Your task to perform on an android device: Open sound settings Image 0: 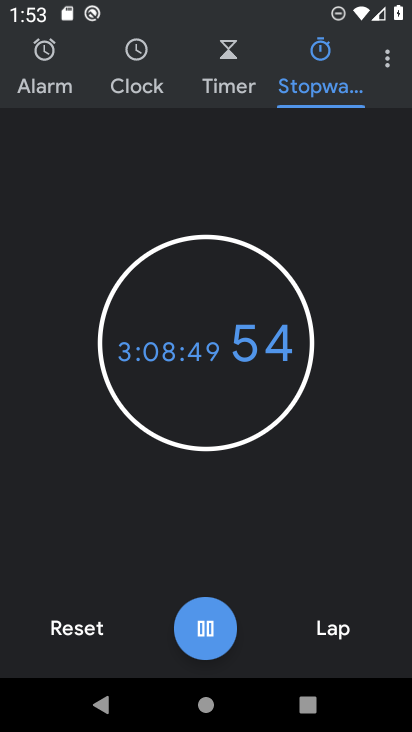
Step 0: press home button
Your task to perform on an android device: Open sound settings Image 1: 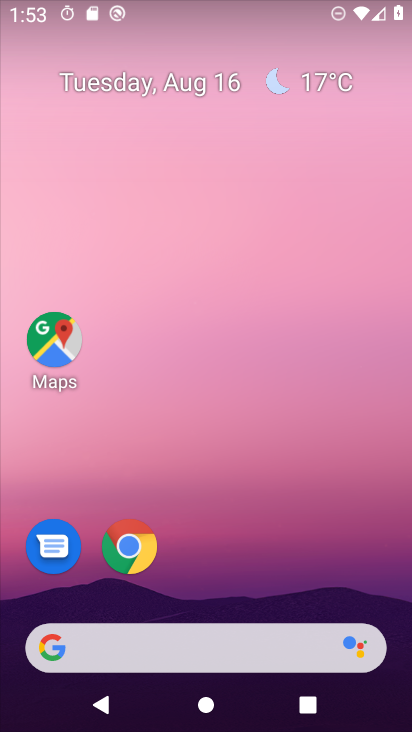
Step 1: drag from (202, 609) to (101, 88)
Your task to perform on an android device: Open sound settings Image 2: 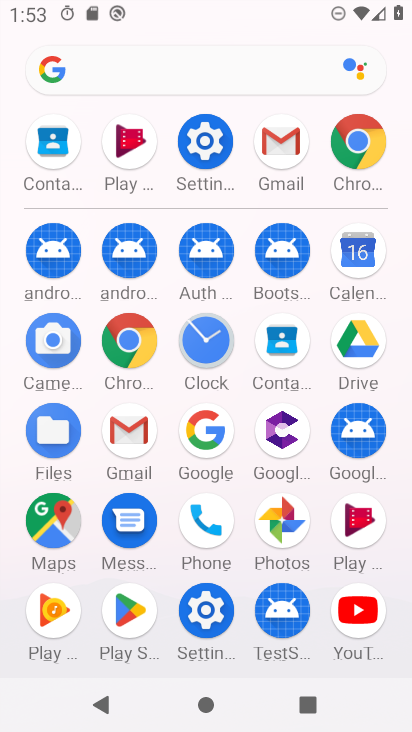
Step 2: click (201, 135)
Your task to perform on an android device: Open sound settings Image 3: 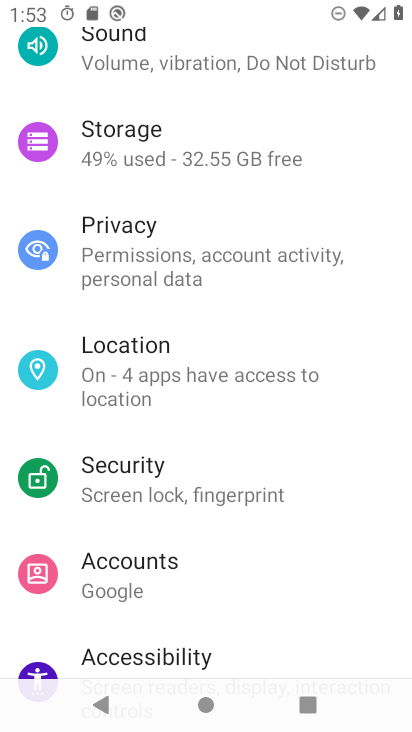
Step 3: click (128, 57)
Your task to perform on an android device: Open sound settings Image 4: 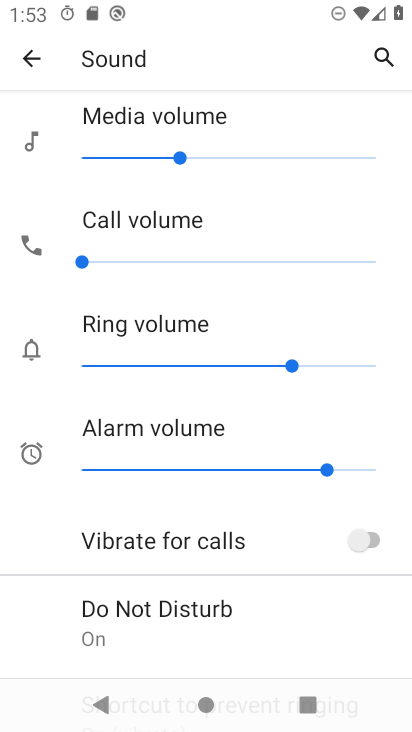
Step 4: task complete